Your task to perform on an android device: turn on improve location accuracy Image 0: 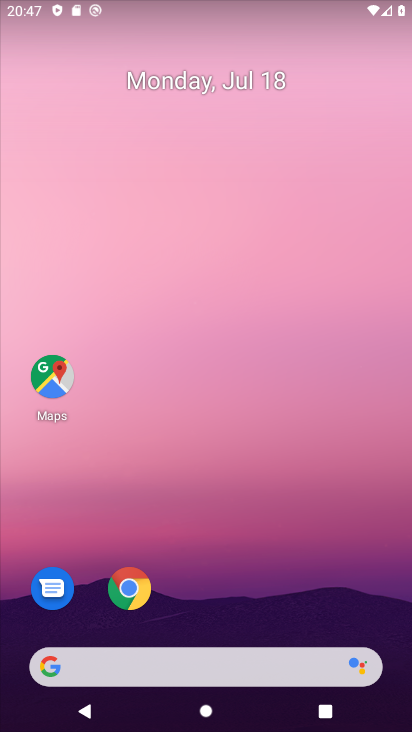
Step 0: press home button
Your task to perform on an android device: turn on improve location accuracy Image 1: 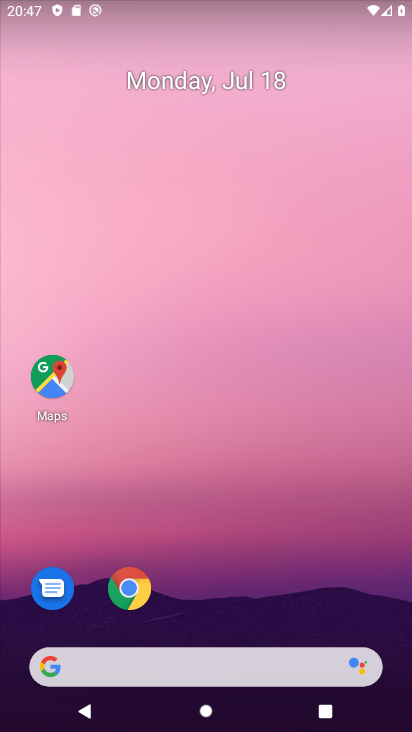
Step 1: drag from (157, 665) to (279, 103)
Your task to perform on an android device: turn on improve location accuracy Image 2: 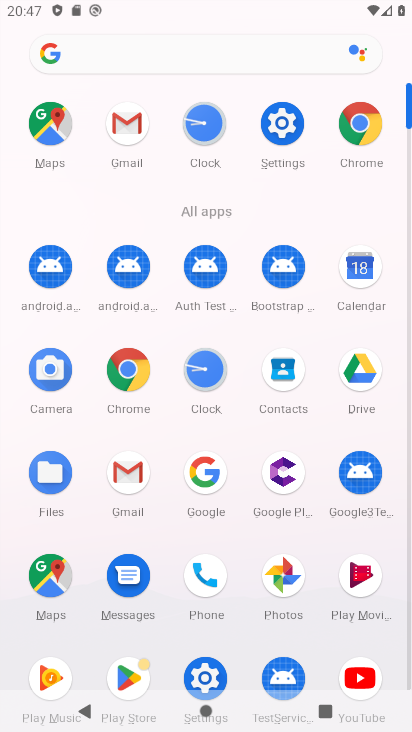
Step 2: click (282, 130)
Your task to perform on an android device: turn on improve location accuracy Image 3: 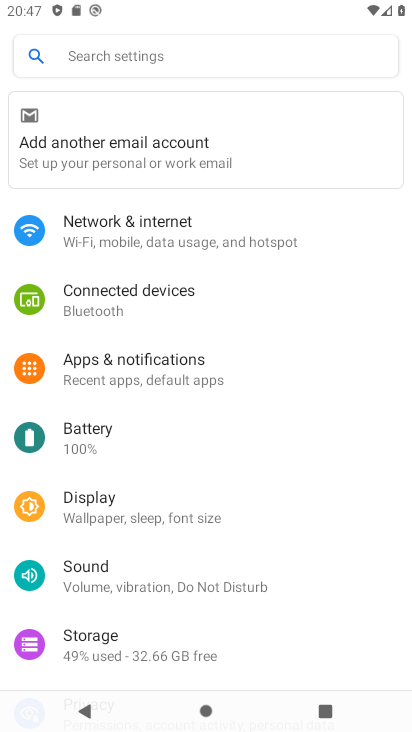
Step 3: drag from (278, 547) to (308, 236)
Your task to perform on an android device: turn on improve location accuracy Image 4: 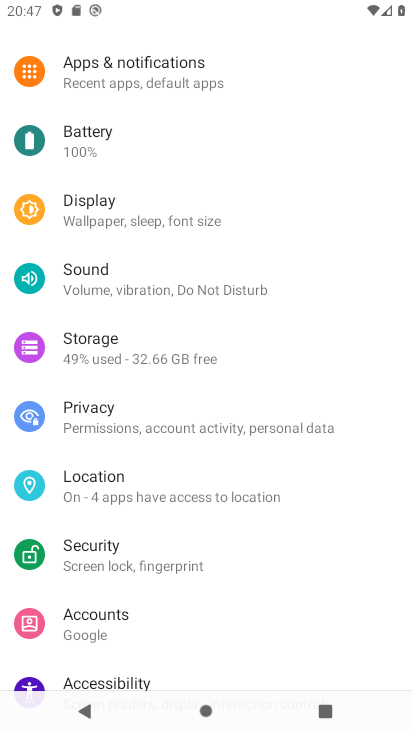
Step 4: click (120, 489)
Your task to perform on an android device: turn on improve location accuracy Image 5: 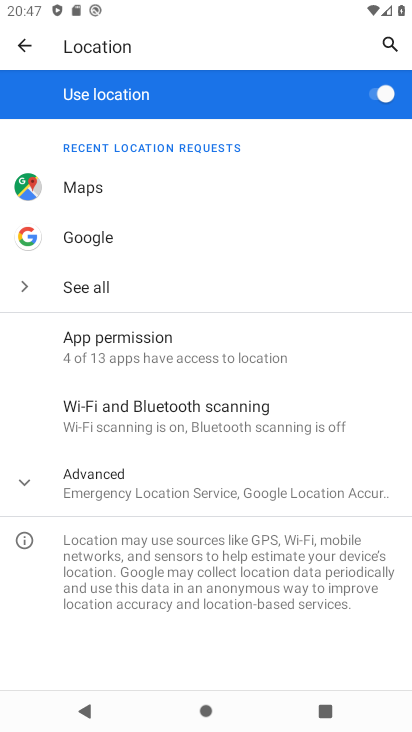
Step 5: click (107, 484)
Your task to perform on an android device: turn on improve location accuracy Image 6: 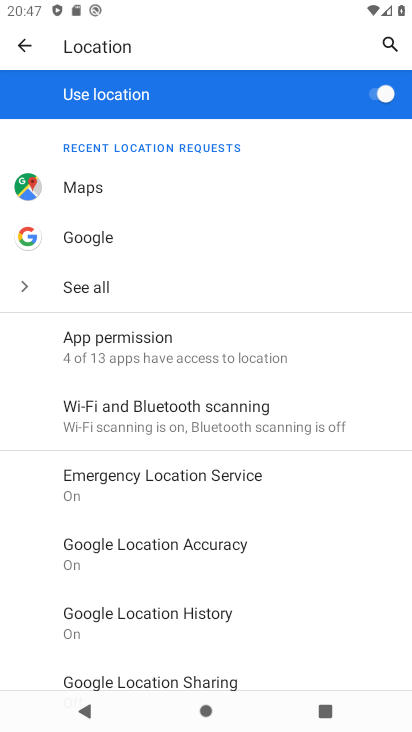
Step 6: click (203, 550)
Your task to perform on an android device: turn on improve location accuracy Image 7: 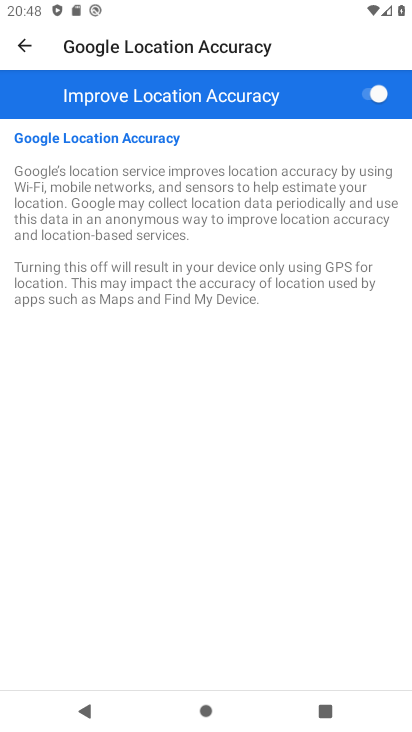
Step 7: task complete